Your task to perform on an android device: remove spam from my inbox in the gmail app Image 0: 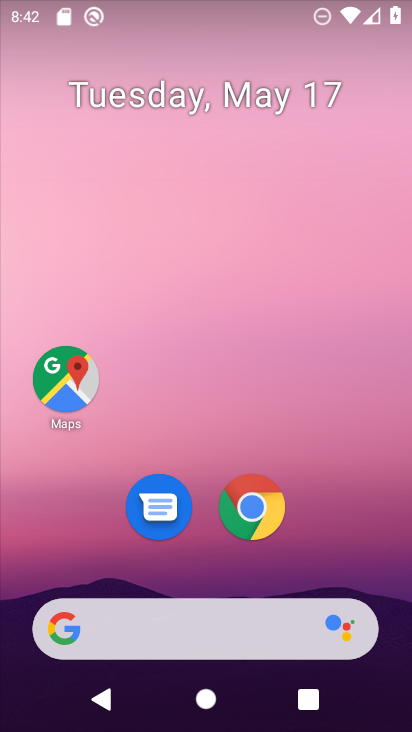
Step 0: drag from (373, 577) to (298, 8)
Your task to perform on an android device: remove spam from my inbox in the gmail app Image 1: 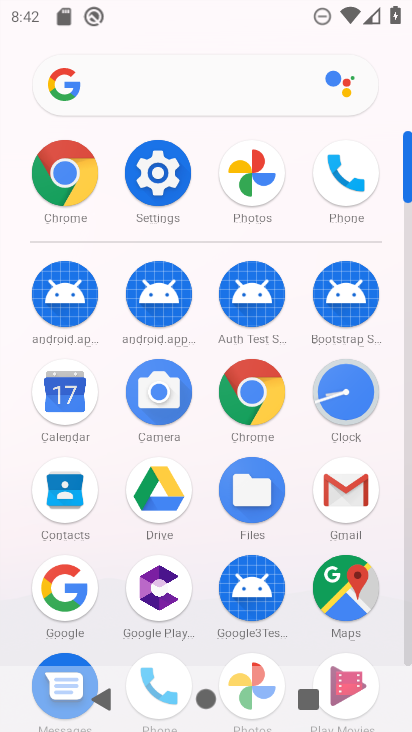
Step 1: click (343, 483)
Your task to perform on an android device: remove spam from my inbox in the gmail app Image 2: 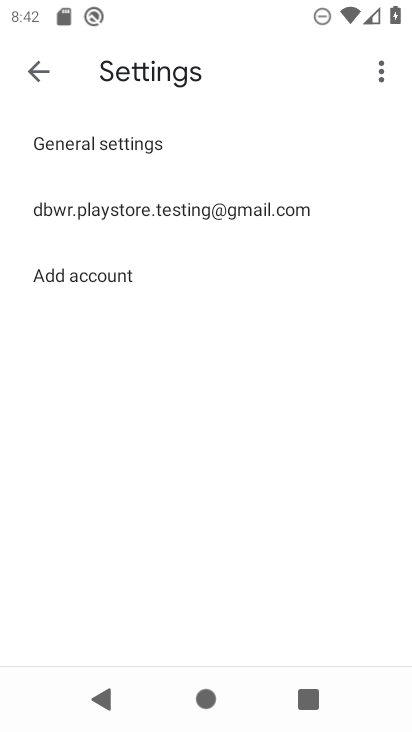
Step 2: click (36, 65)
Your task to perform on an android device: remove spam from my inbox in the gmail app Image 3: 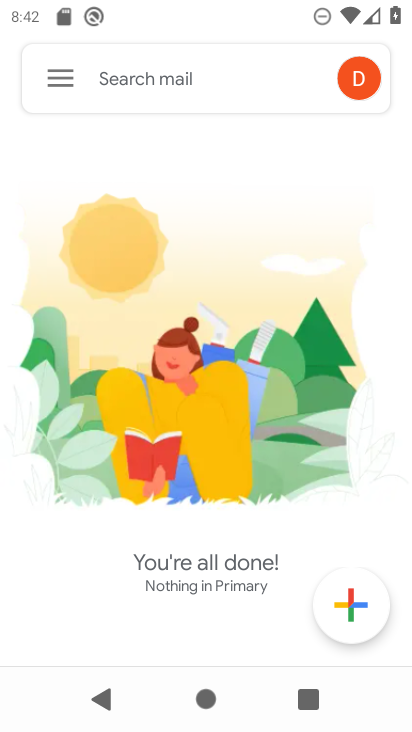
Step 3: click (58, 78)
Your task to perform on an android device: remove spam from my inbox in the gmail app Image 4: 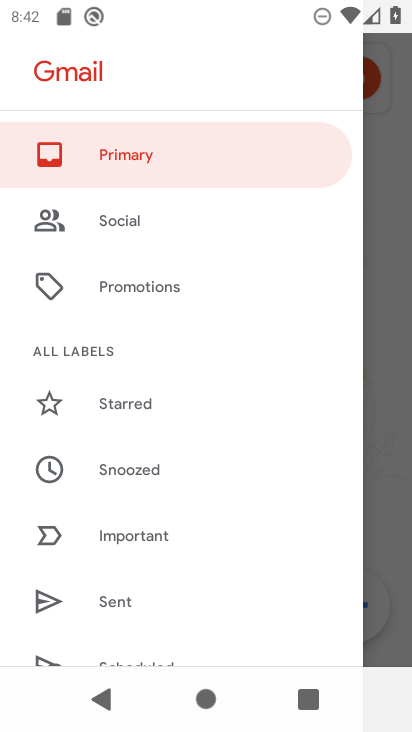
Step 4: drag from (188, 612) to (195, 281)
Your task to perform on an android device: remove spam from my inbox in the gmail app Image 5: 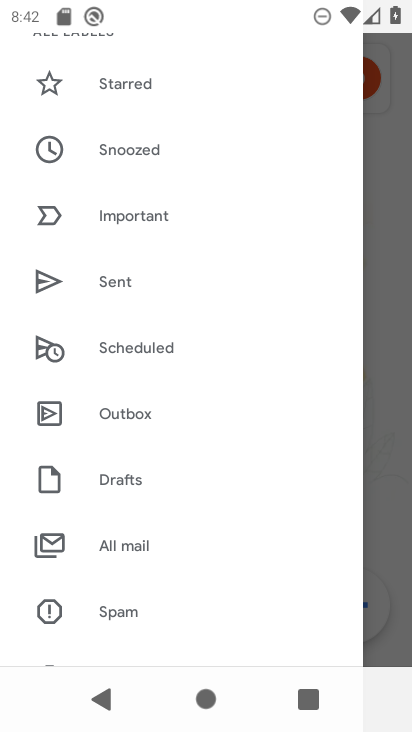
Step 5: click (108, 614)
Your task to perform on an android device: remove spam from my inbox in the gmail app Image 6: 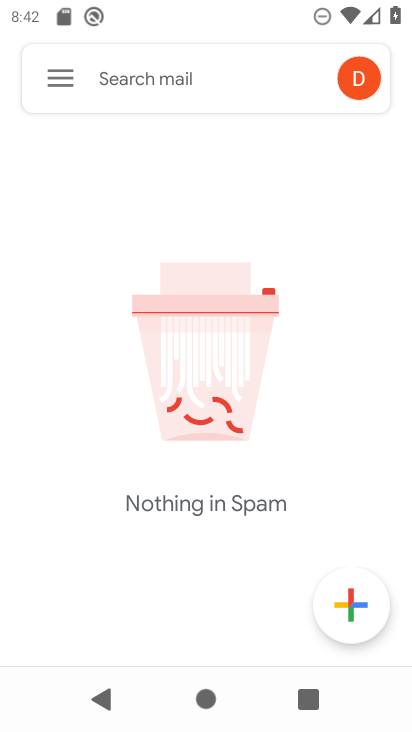
Step 6: task complete